Your task to perform on an android device: turn off sleep mode Image 0: 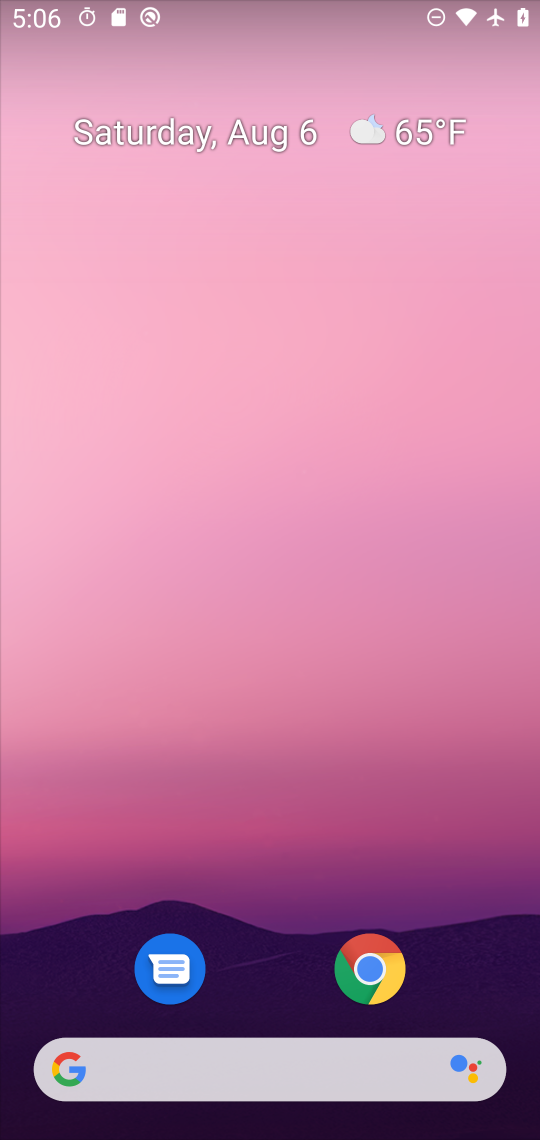
Step 0: press home button
Your task to perform on an android device: turn off sleep mode Image 1: 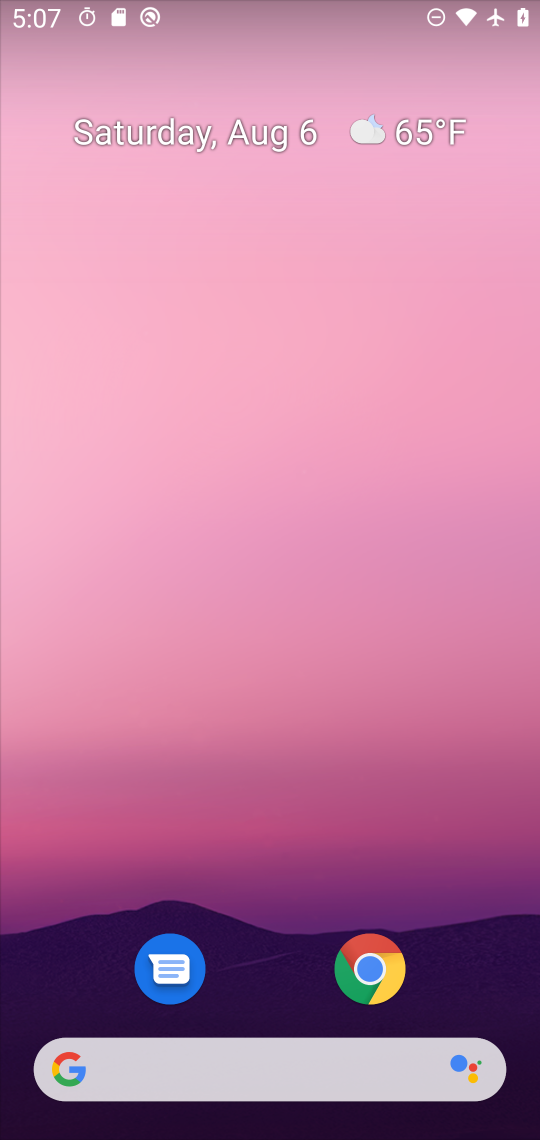
Step 1: drag from (261, 1002) to (242, 116)
Your task to perform on an android device: turn off sleep mode Image 2: 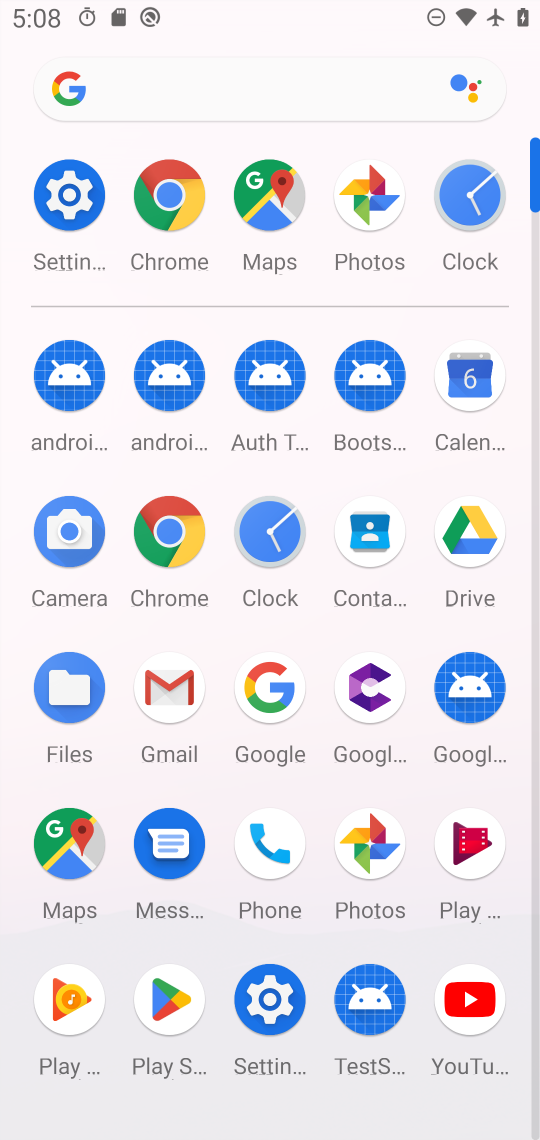
Step 2: click (46, 212)
Your task to perform on an android device: turn off sleep mode Image 3: 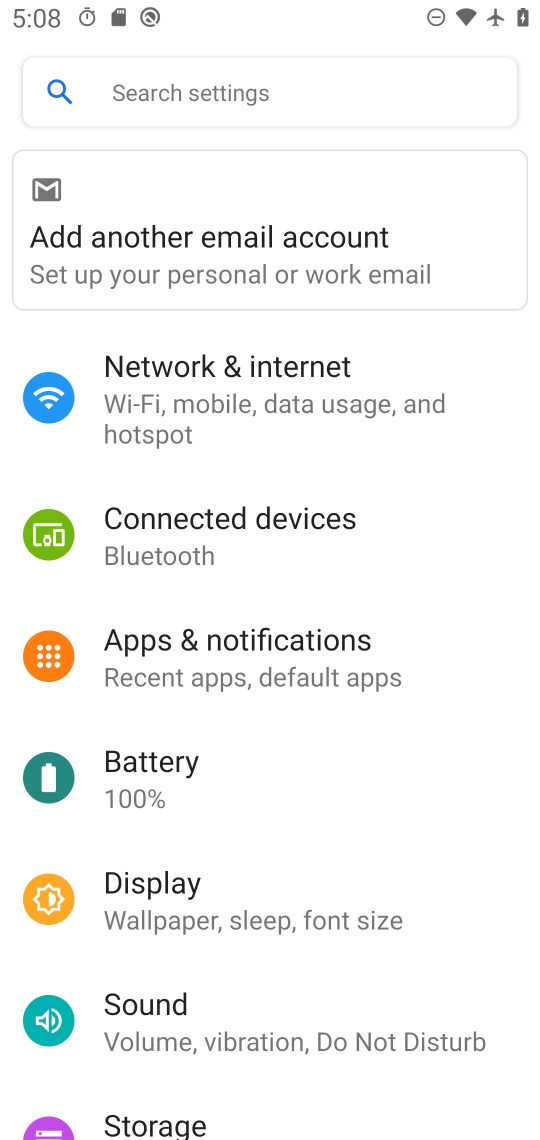
Step 3: click (165, 896)
Your task to perform on an android device: turn off sleep mode Image 4: 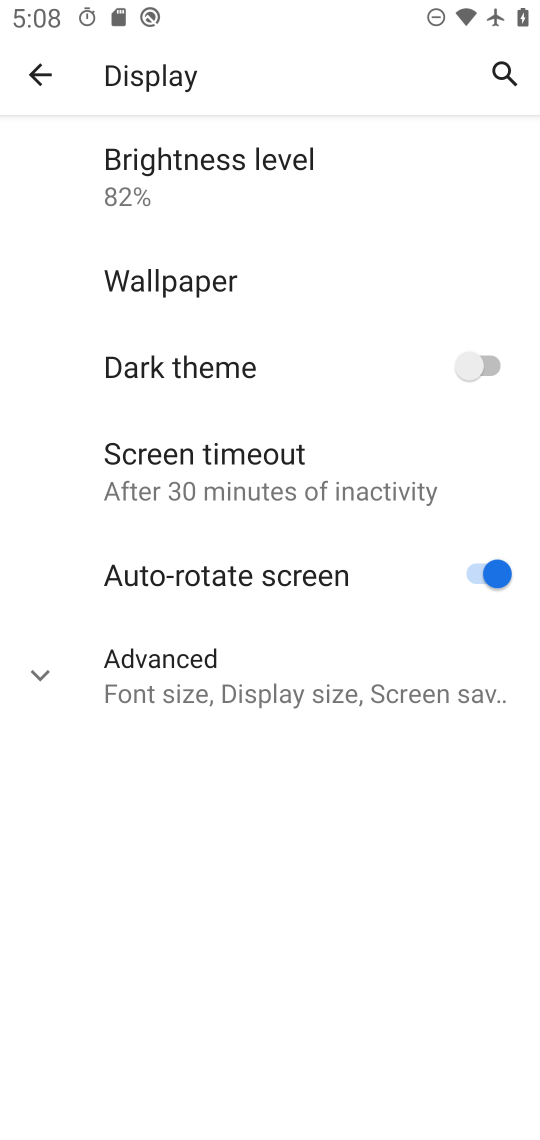
Step 4: task complete